Your task to perform on an android device: Search for seafood restaurants on Google Maps Image 0: 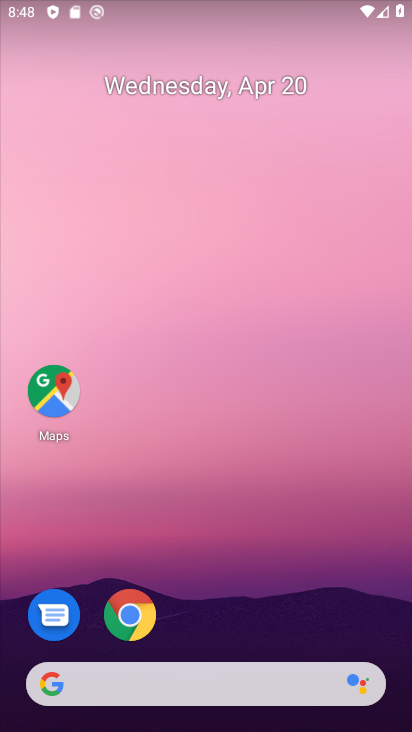
Step 0: drag from (201, 662) to (183, 20)
Your task to perform on an android device: Search for seafood restaurants on Google Maps Image 1: 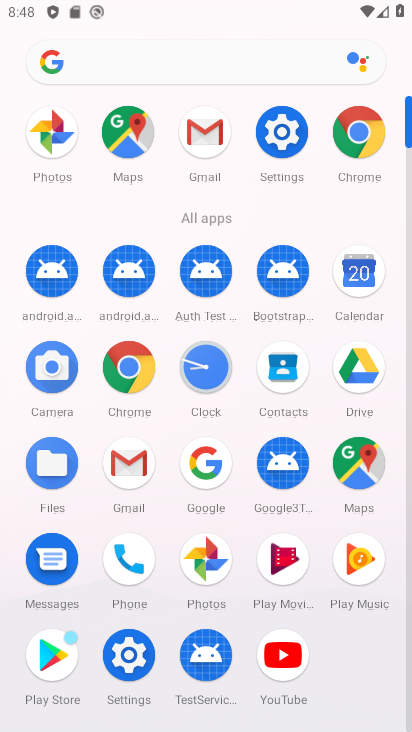
Step 1: click (371, 473)
Your task to perform on an android device: Search for seafood restaurants on Google Maps Image 2: 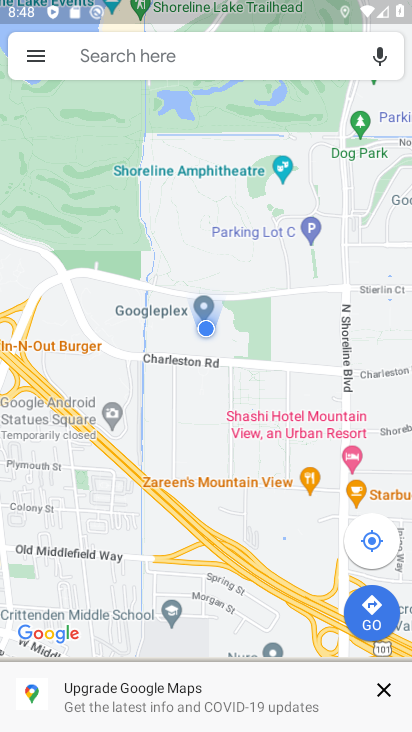
Step 2: click (130, 50)
Your task to perform on an android device: Search for seafood restaurants on Google Maps Image 3: 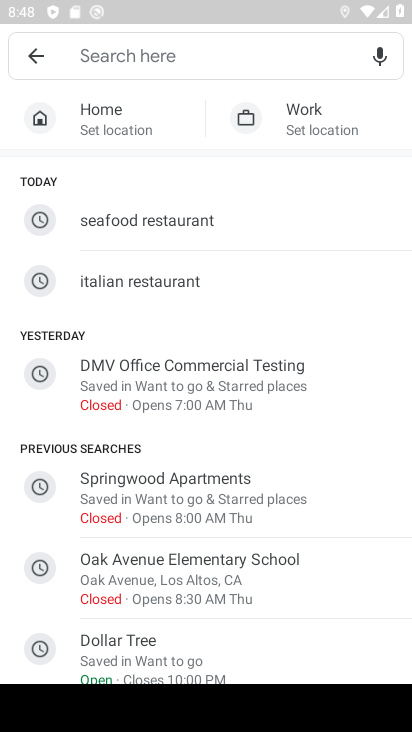
Step 3: drag from (132, 501) to (170, 314)
Your task to perform on an android device: Search for seafood restaurants on Google Maps Image 4: 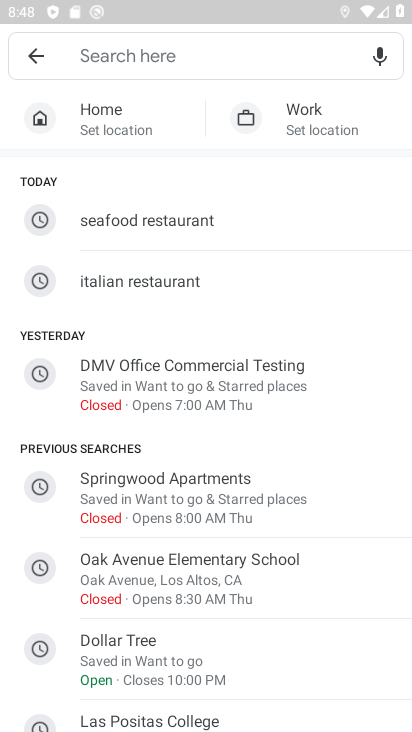
Step 4: click (111, 232)
Your task to perform on an android device: Search for seafood restaurants on Google Maps Image 5: 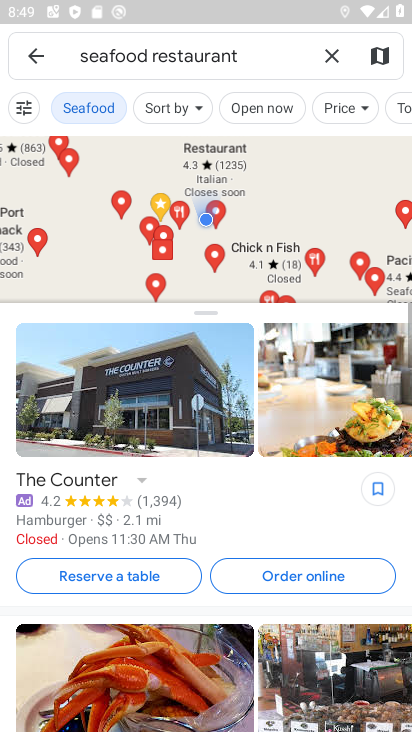
Step 5: task complete